Your task to perform on an android device: open app "Google Play services" Image 0: 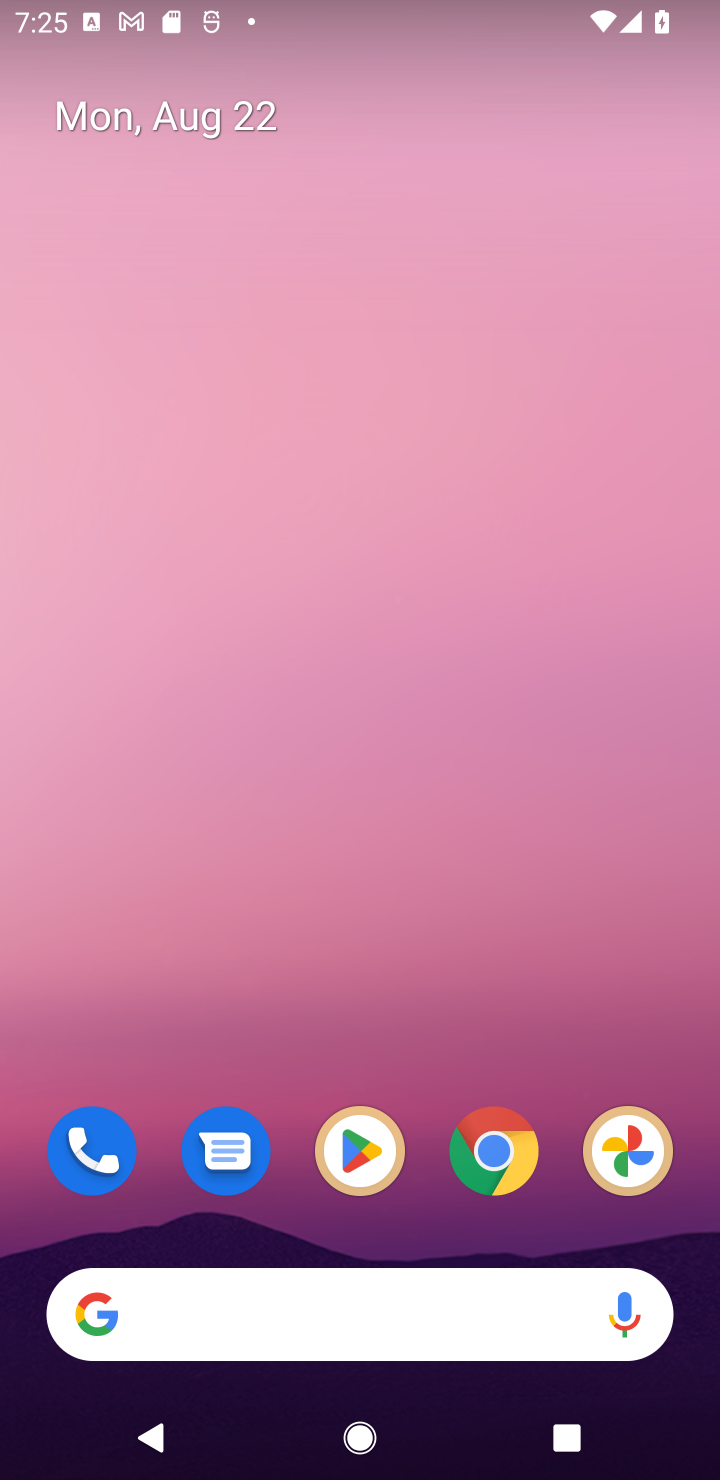
Step 0: click (359, 1138)
Your task to perform on an android device: open app "Google Play services" Image 1: 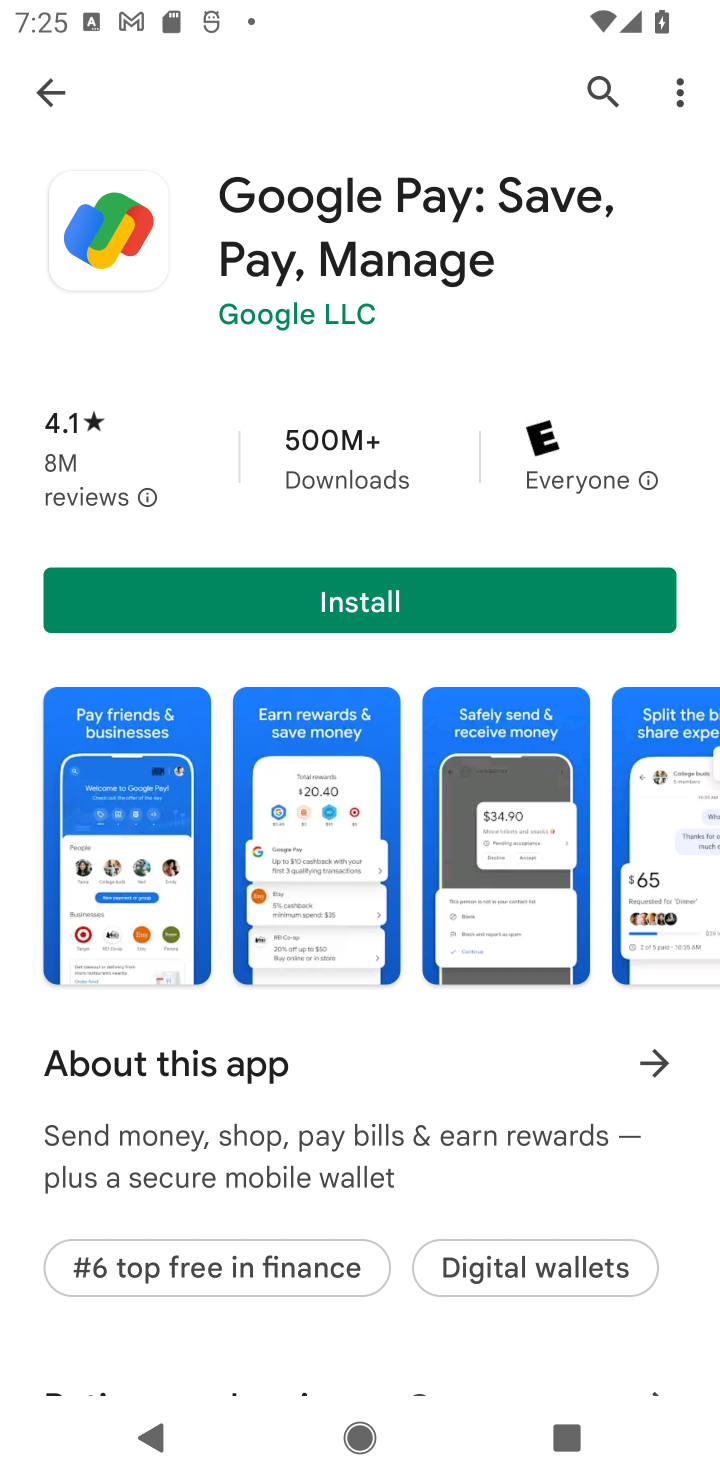
Step 1: click (588, 81)
Your task to perform on an android device: open app "Google Play services" Image 2: 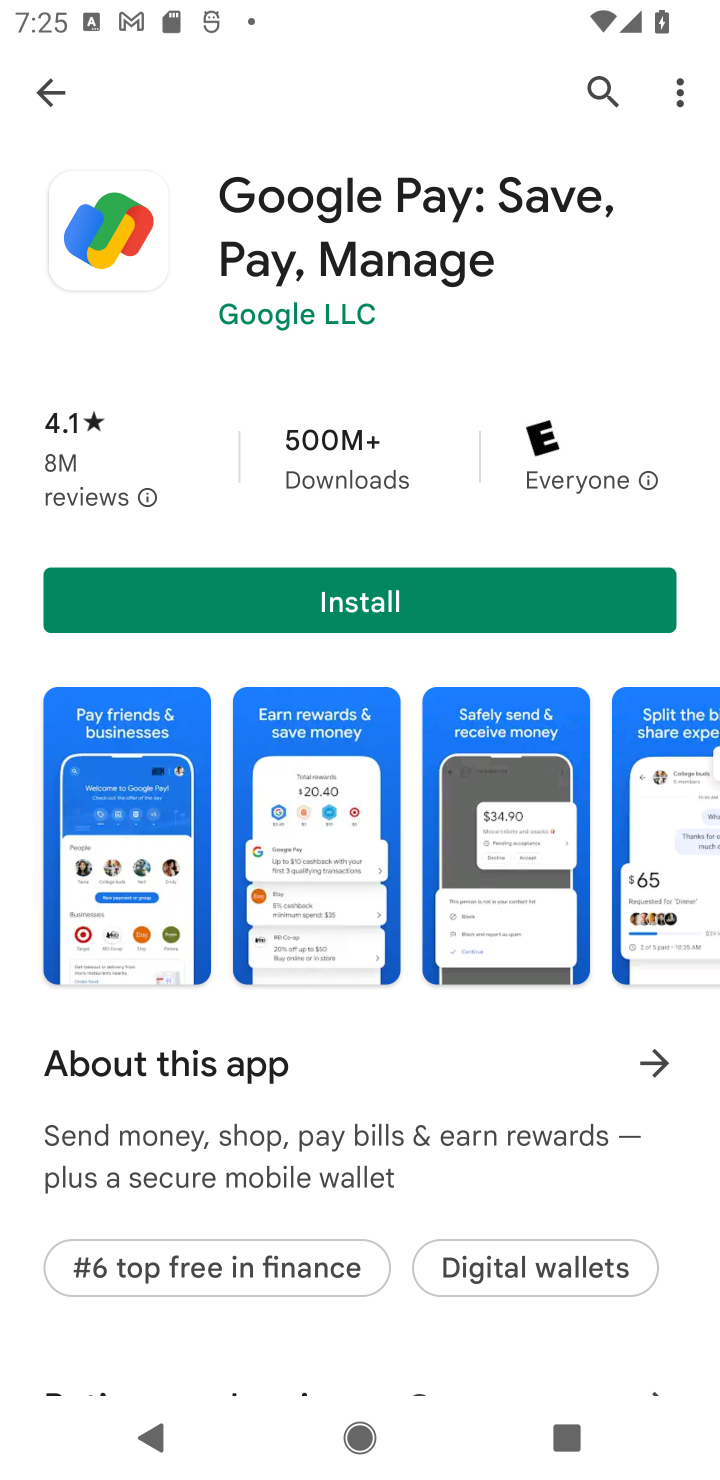
Step 2: click (595, 96)
Your task to perform on an android device: open app "Google Play services" Image 3: 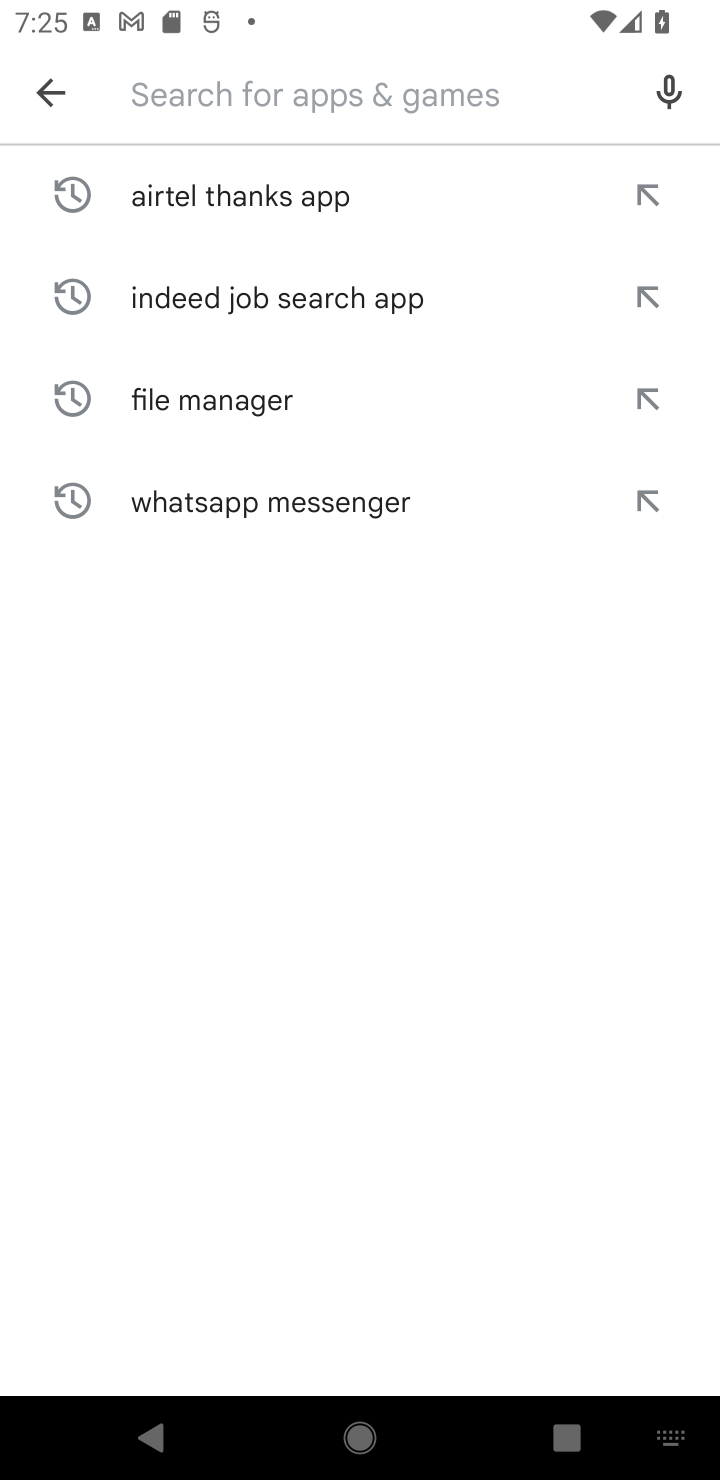
Step 3: type "Google Play services"
Your task to perform on an android device: open app "Google Play services" Image 4: 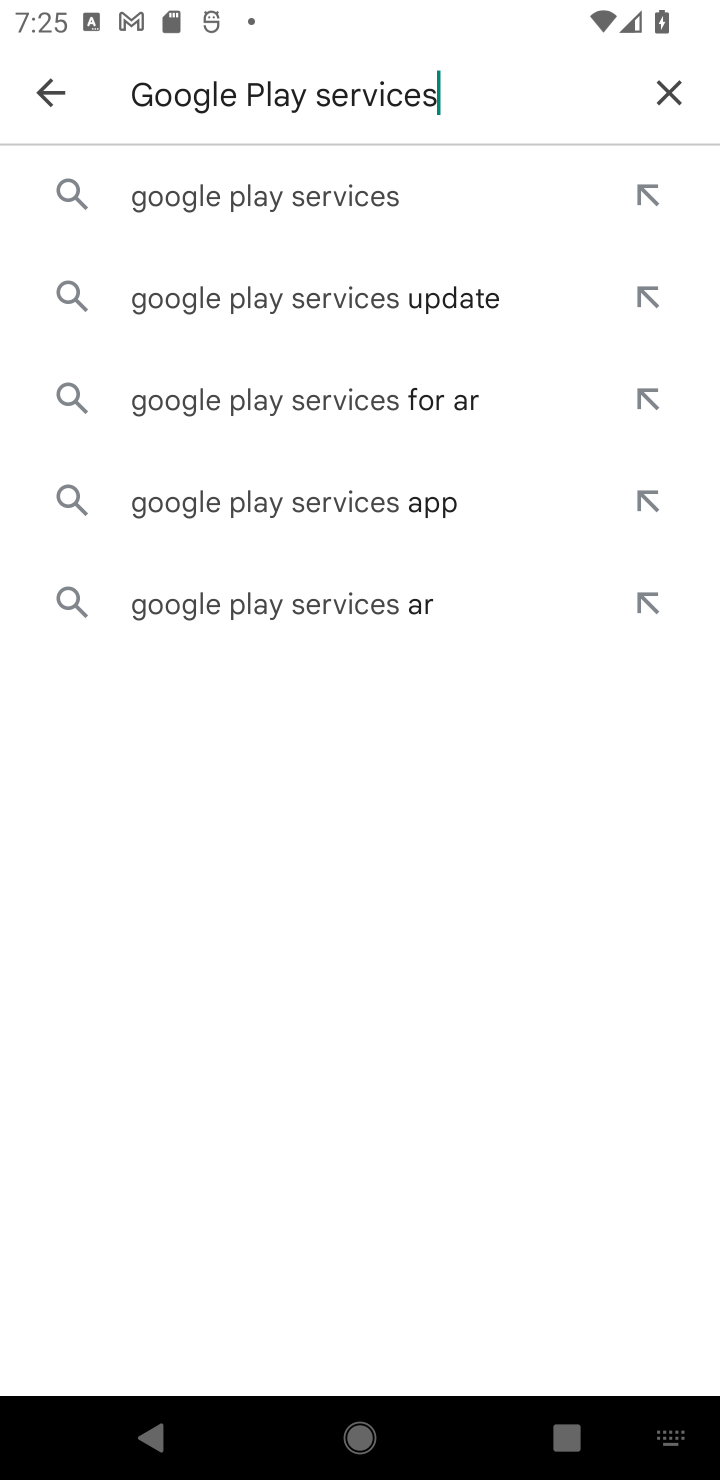
Step 4: click (277, 208)
Your task to perform on an android device: open app "Google Play services" Image 5: 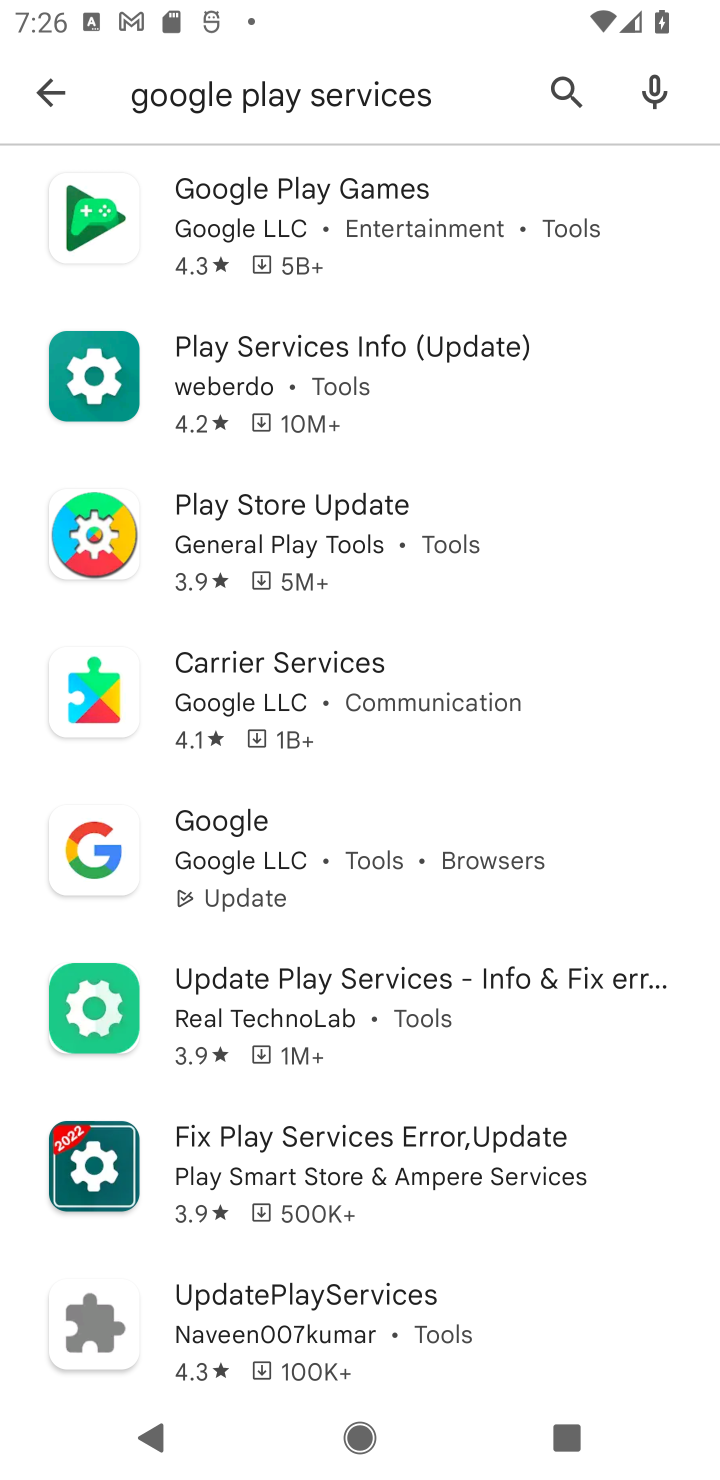
Step 5: task complete